Your task to perform on an android device: Is it going to rain this weekend? Image 0: 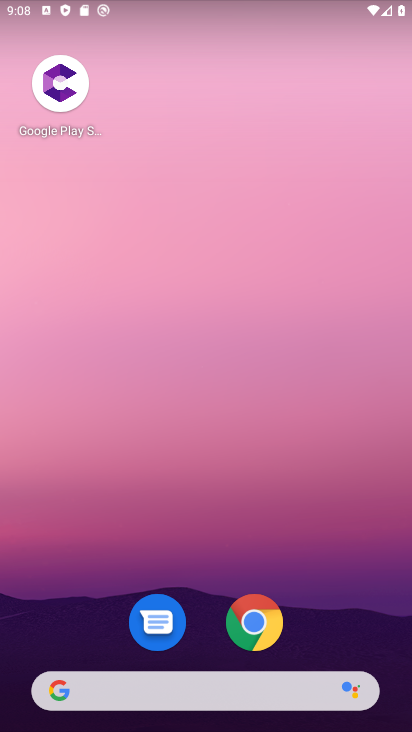
Step 0: click (226, 698)
Your task to perform on an android device: Is it going to rain this weekend? Image 1: 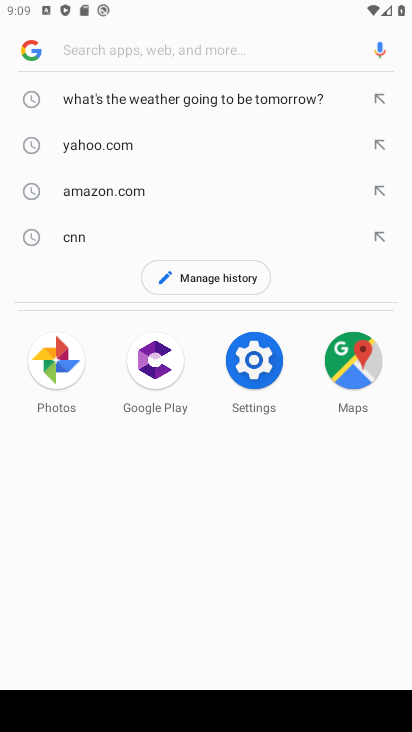
Step 1: type "Is it going to rain this weekend?"
Your task to perform on an android device: Is it going to rain this weekend? Image 2: 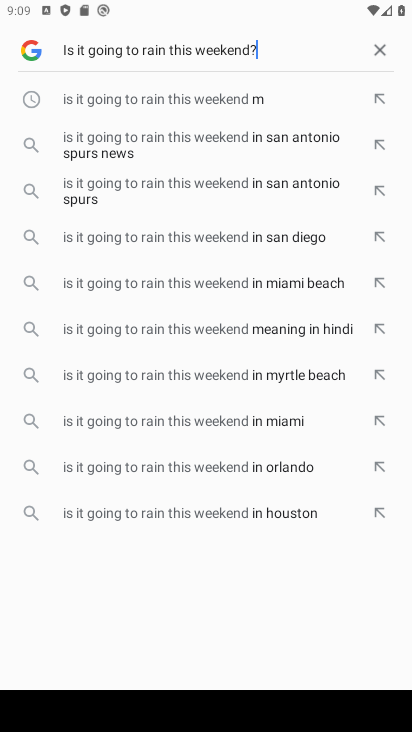
Step 2: press enter
Your task to perform on an android device: Is it going to rain this weekend? Image 3: 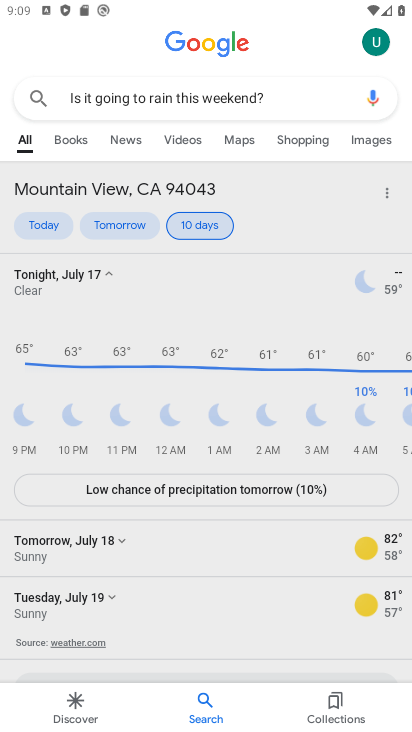
Step 3: task complete